Your task to perform on an android device: turn off data saver in the chrome app Image 0: 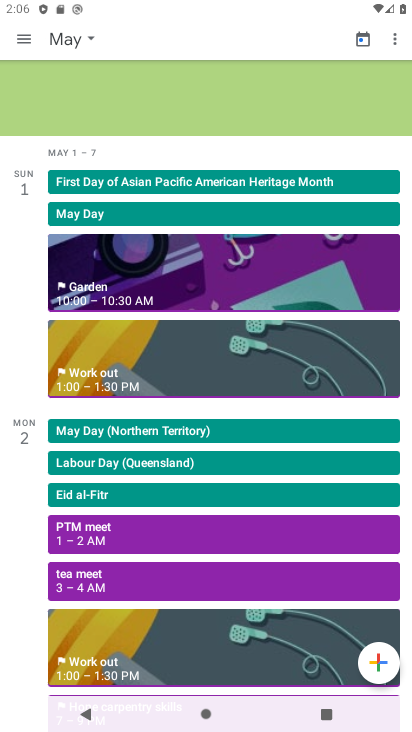
Step 0: press home button
Your task to perform on an android device: turn off data saver in the chrome app Image 1: 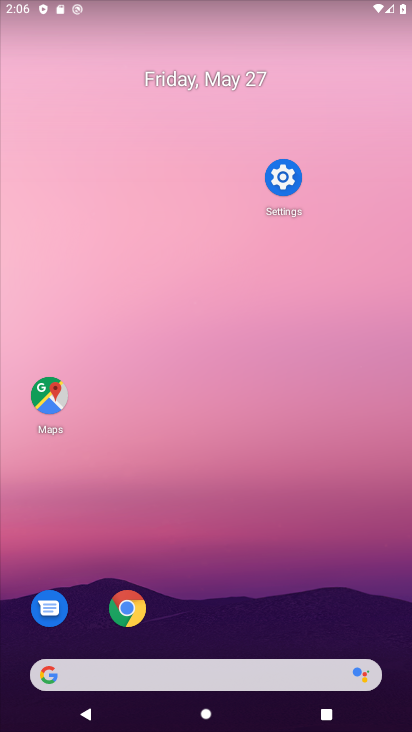
Step 1: click (121, 588)
Your task to perform on an android device: turn off data saver in the chrome app Image 2: 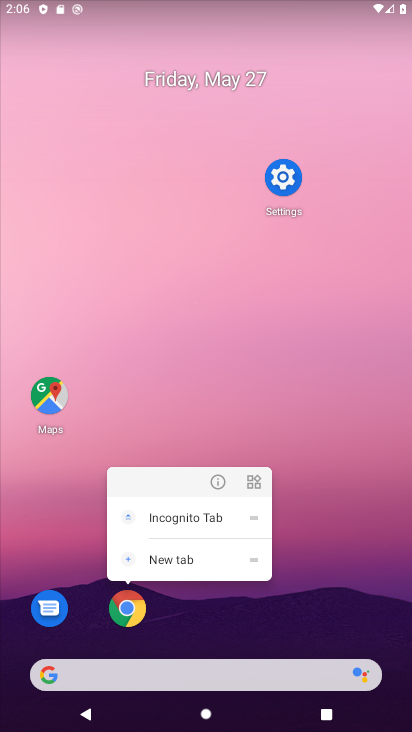
Step 2: click (137, 611)
Your task to perform on an android device: turn off data saver in the chrome app Image 3: 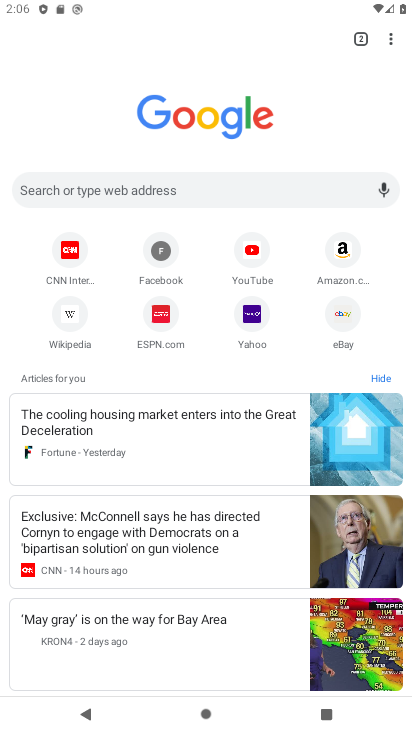
Step 3: click (395, 38)
Your task to perform on an android device: turn off data saver in the chrome app Image 4: 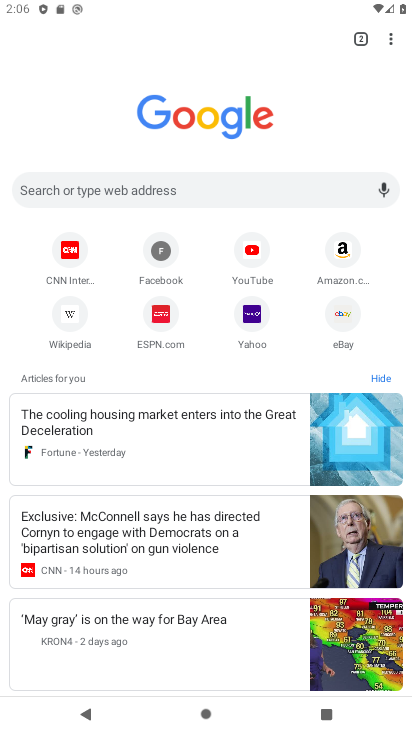
Step 4: drag from (392, 36) to (249, 335)
Your task to perform on an android device: turn off data saver in the chrome app Image 5: 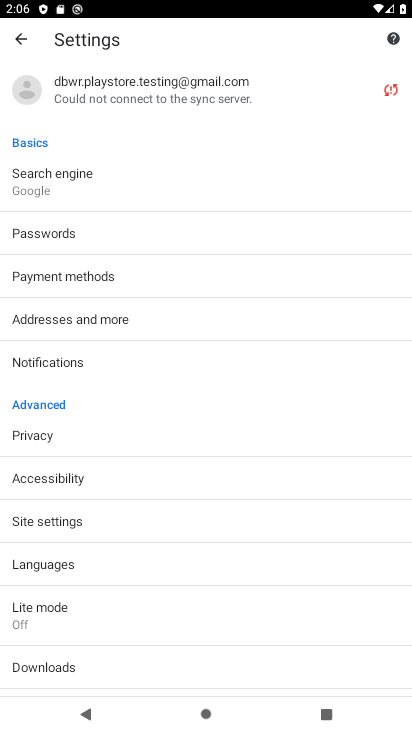
Step 5: click (74, 618)
Your task to perform on an android device: turn off data saver in the chrome app Image 6: 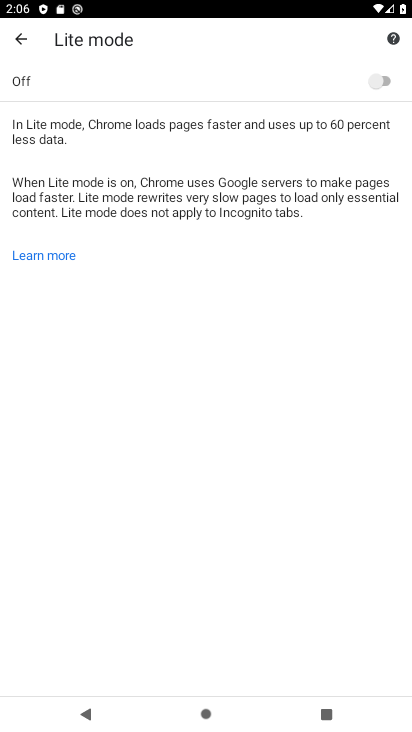
Step 6: task complete